Your task to perform on an android device: Add "macbook pro" to the cart on ebay, then select checkout. Image 0: 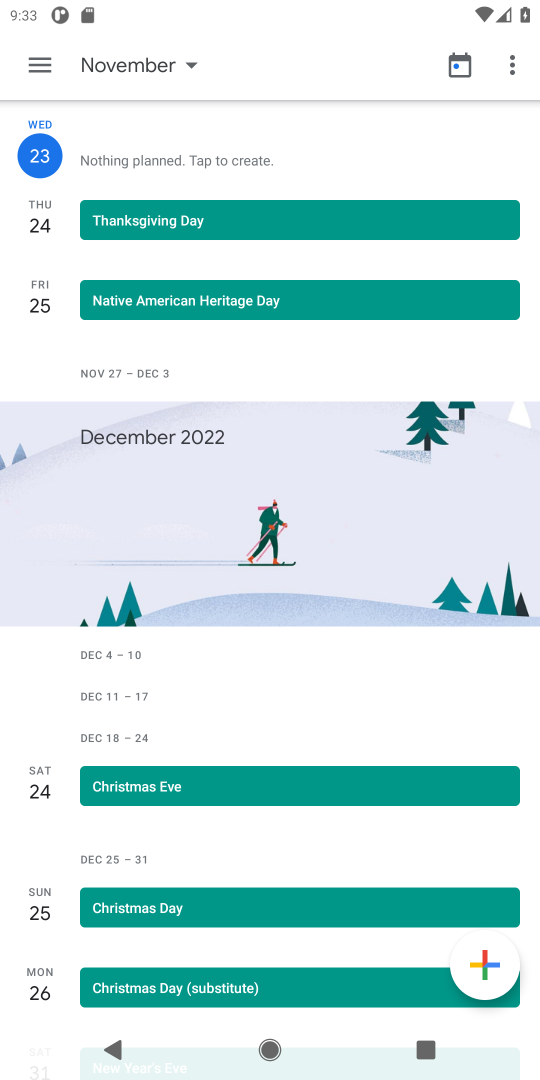
Step 0: press home button
Your task to perform on an android device: Add "macbook pro" to the cart on ebay, then select checkout. Image 1: 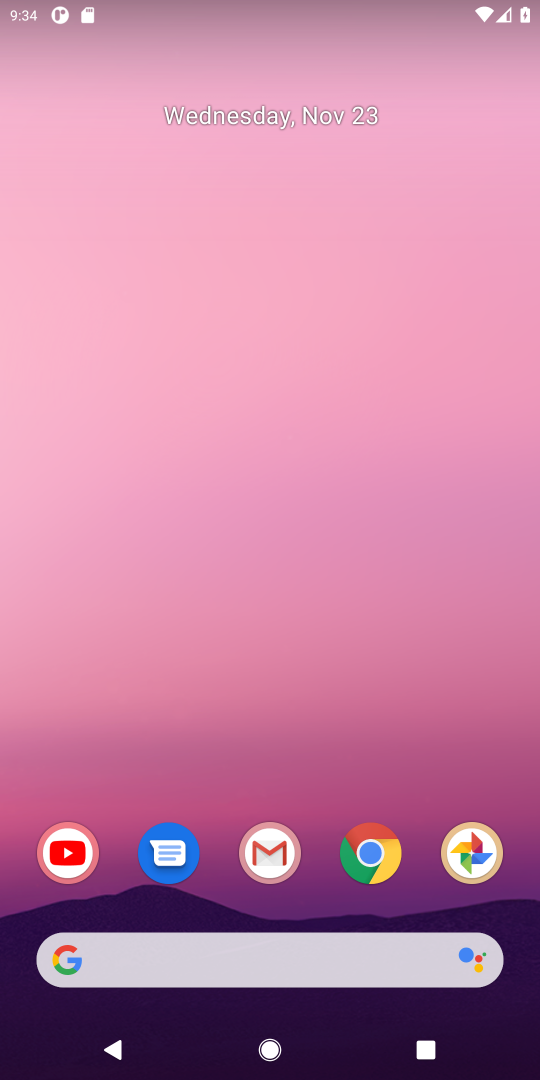
Step 1: click (374, 859)
Your task to perform on an android device: Add "macbook pro" to the cart on ebay, then select checkout. Image 2: 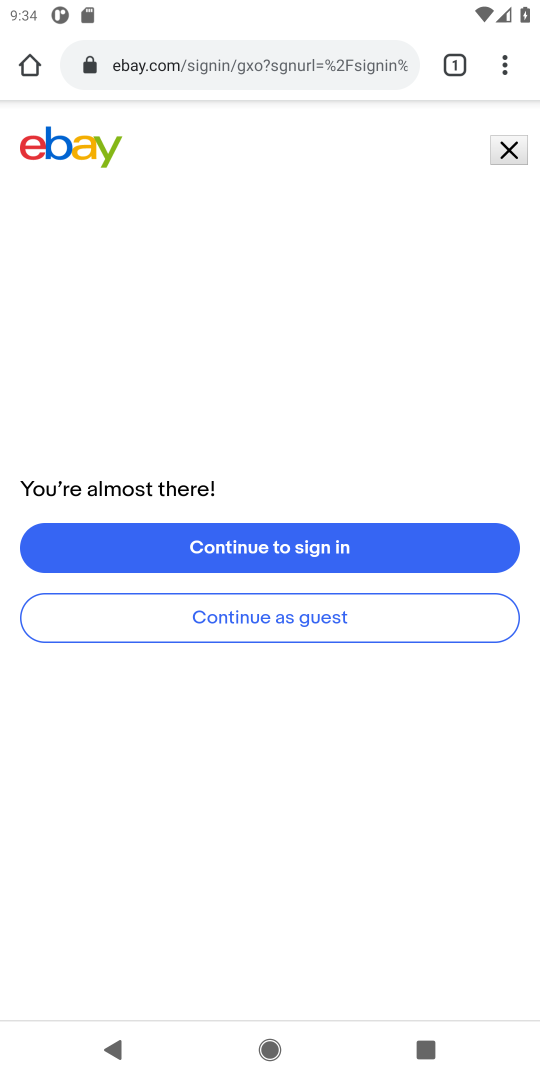
Step 2: click (203, 59)
Your task to perform on an android device: Add "macbook pro" to the cart on ebay, then select checkout. Image 3: 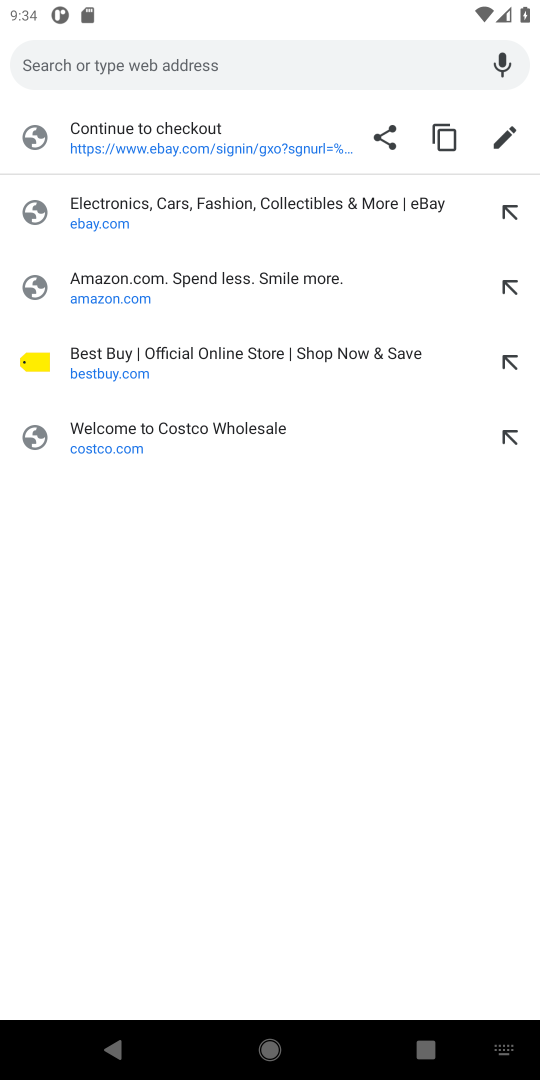
Step 3: click (112, 223)
Your task to perform on an android device: Add "macbook pro" to the cart on ebay, then select checkout. Image 4: 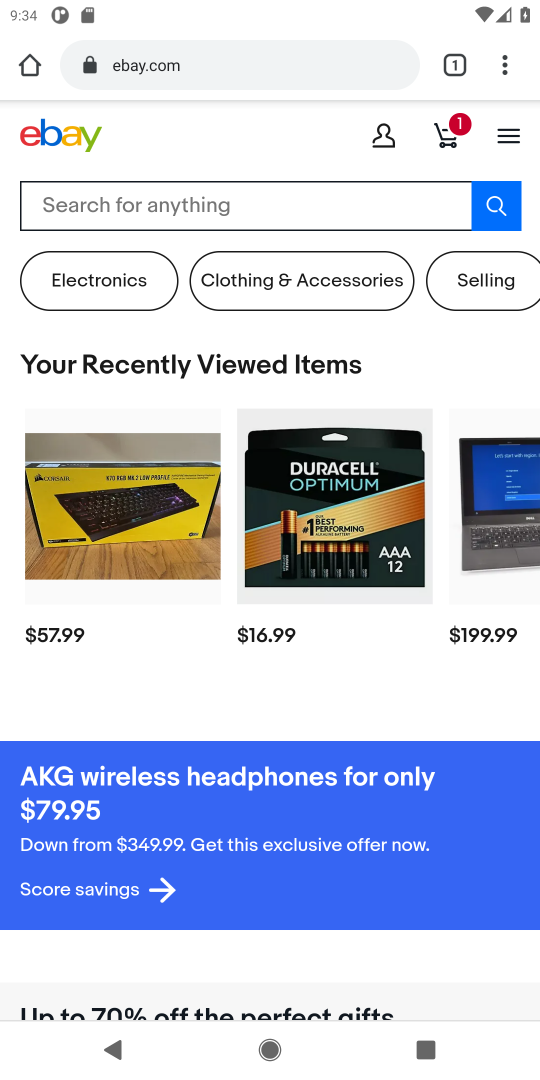
Step 4: click (148, 205)
Your task to perform on an android device: Add "macbook pro" to the cart on ebay, then select checkout. Image 5: 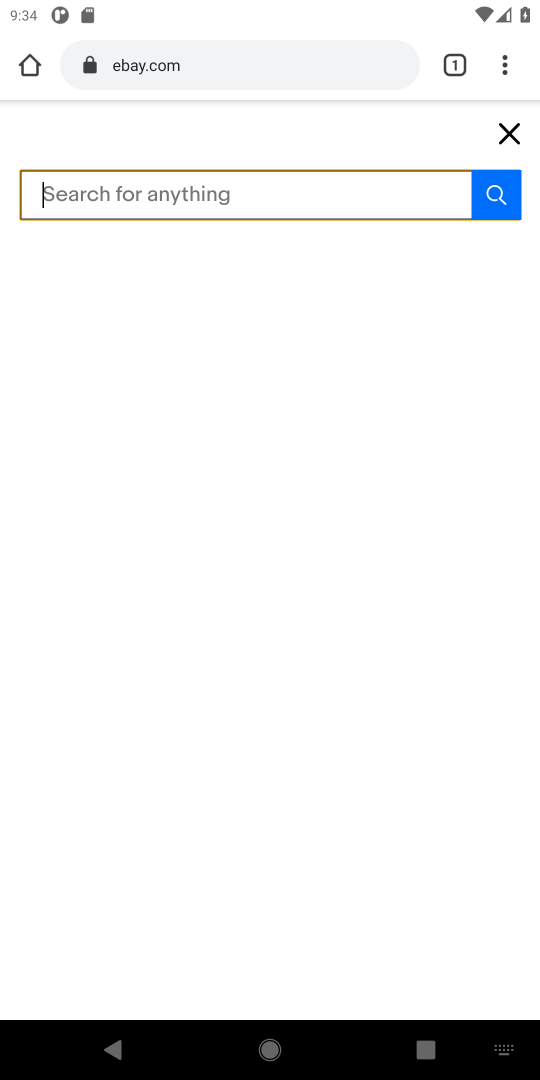
Step 5: type "macbook pro"
Your task to perform on an android device: Add "macbook pro" to the cart on ebay, then select checkout. Image 6: 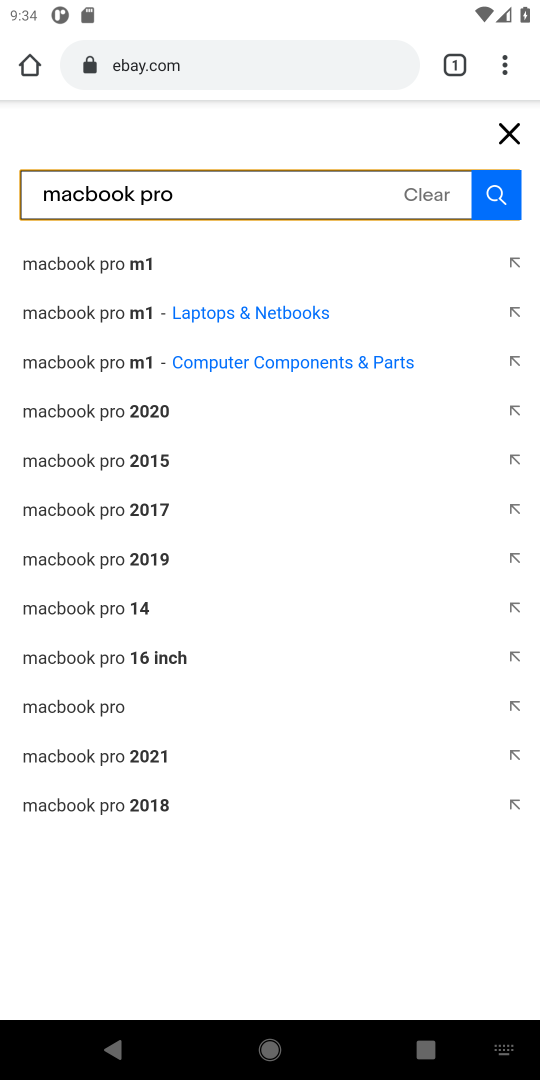
Step 6: click (38, 705)
Your task to perform on an android device: Add "macbook pro" to the cart on ebay, then select checkout. Image 7: 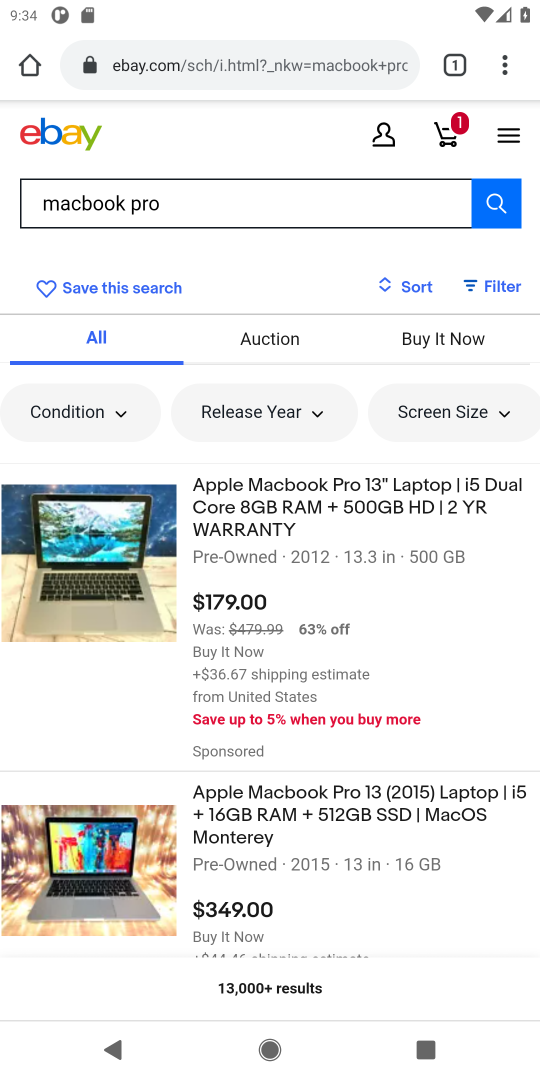
Step 7: click (98, 588)
Your task to perform on an android device: Add "macbook pro" to the cart on ebay, then select checkout. Image 8: 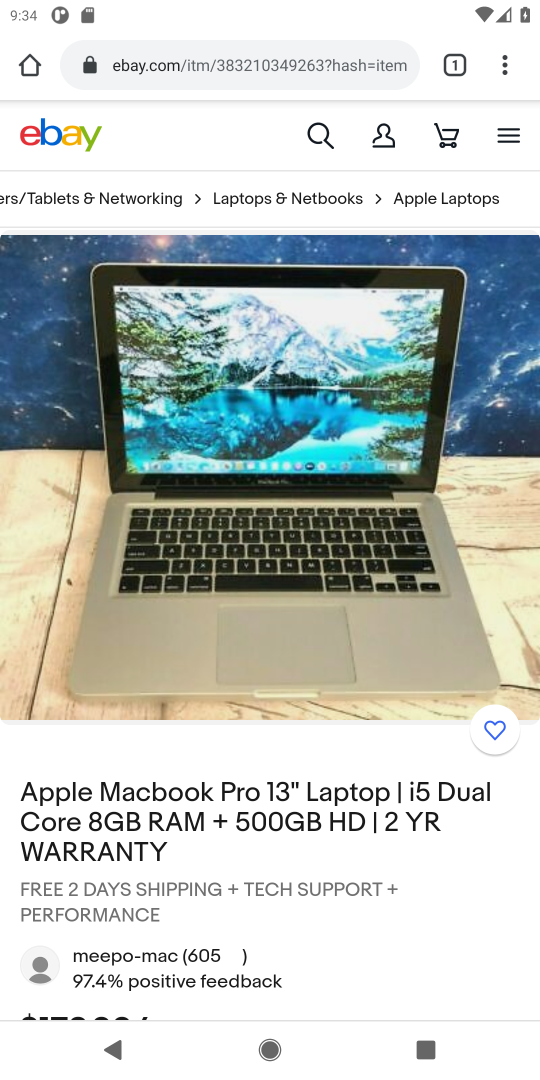
Step 8: drag from (309, 706) to (275, 327)
Your task to perform on an android device: Add "macbook pro" to the cart on ebay, then select checkout. Image 9: 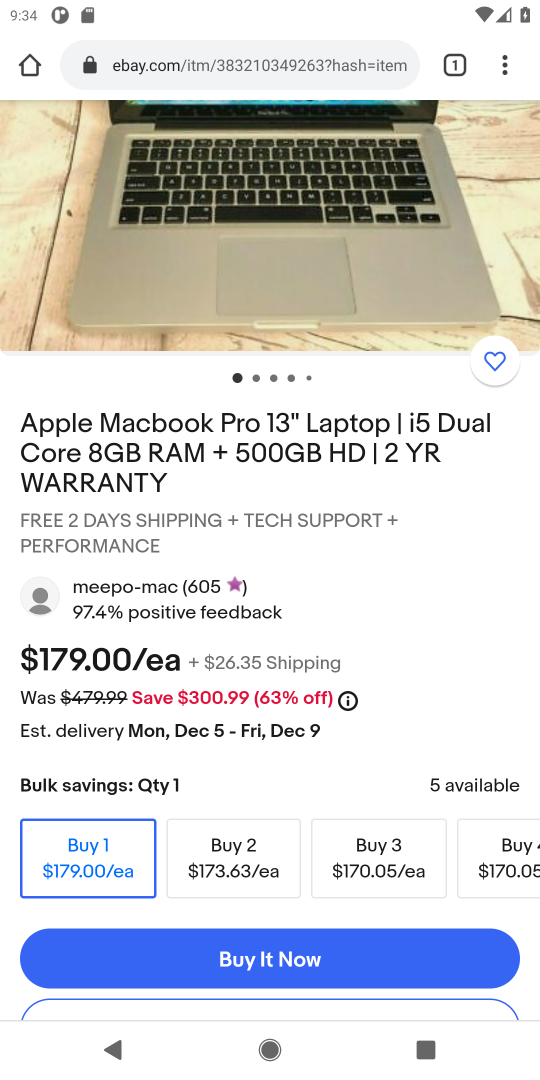
Step 9: drag from (218, 737) to (217, 448)
Your task to perform on an android device: Add "macbook pro" to the cart on ebay, then select checkout. Image 10: 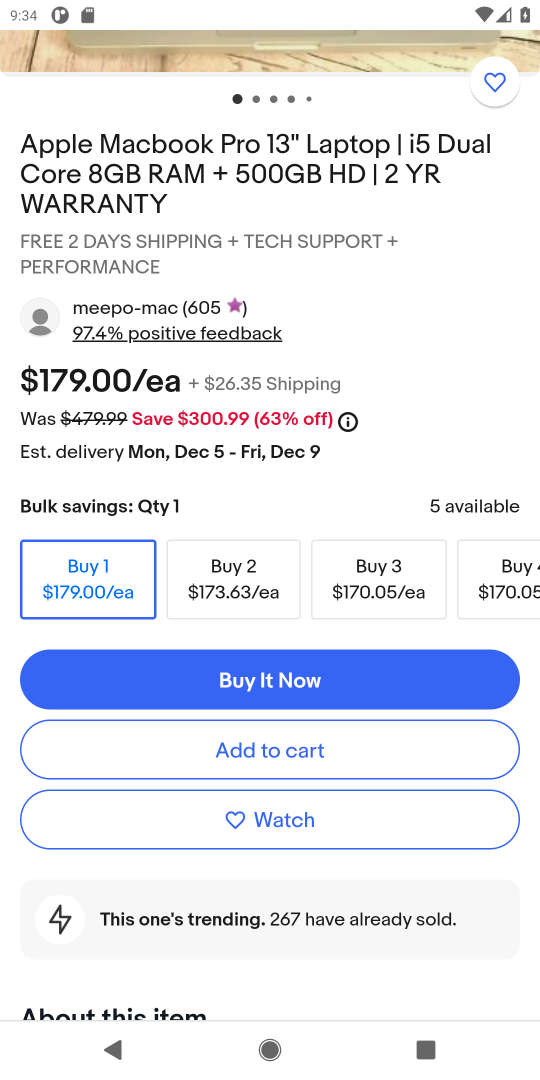
Step 10: click (199, 748)
Your task to perform on an android device: Add "macbook pro" to the cart on ebay, then select checkout. Image 11: 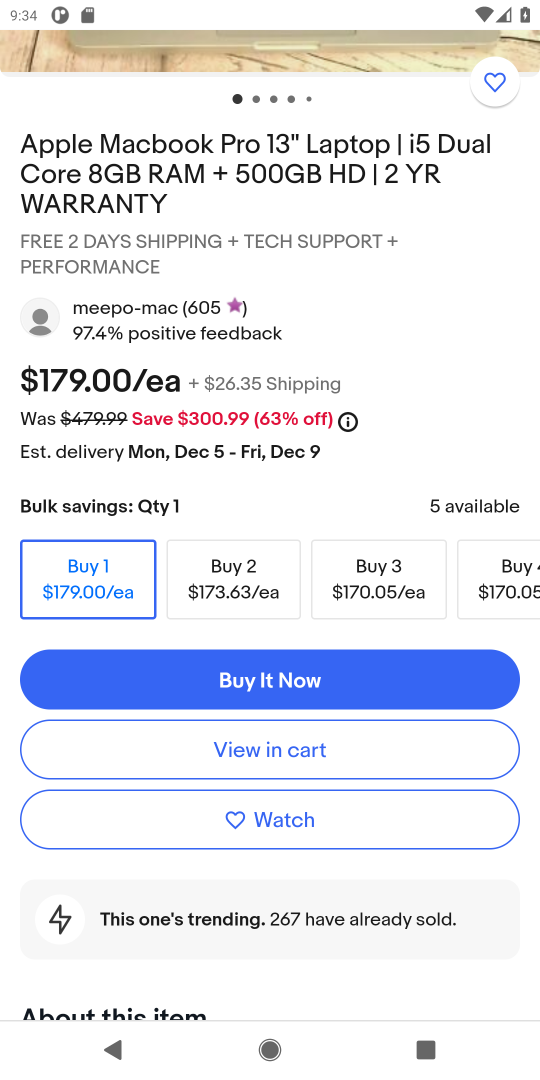
Step 11: click (228, 748)
Your task to perform on an android device: Add "macbook pro" to the cart on ebay, then select checkout. Image 12: 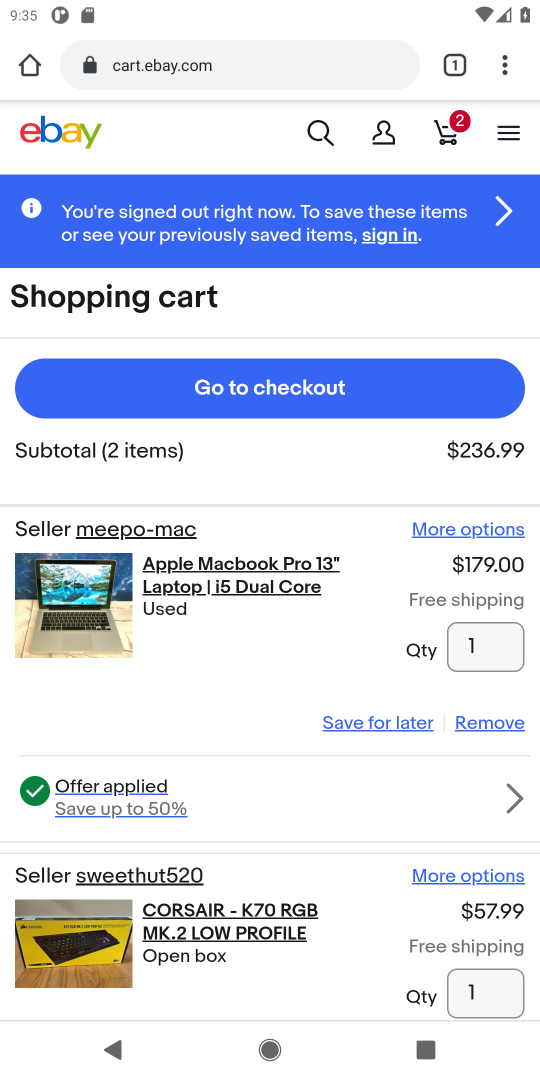
Step 12: click (266, 393)
Your task to perform on an android device: Add "macbook pro" to the cart on ebay, then select checkout. Image 13: 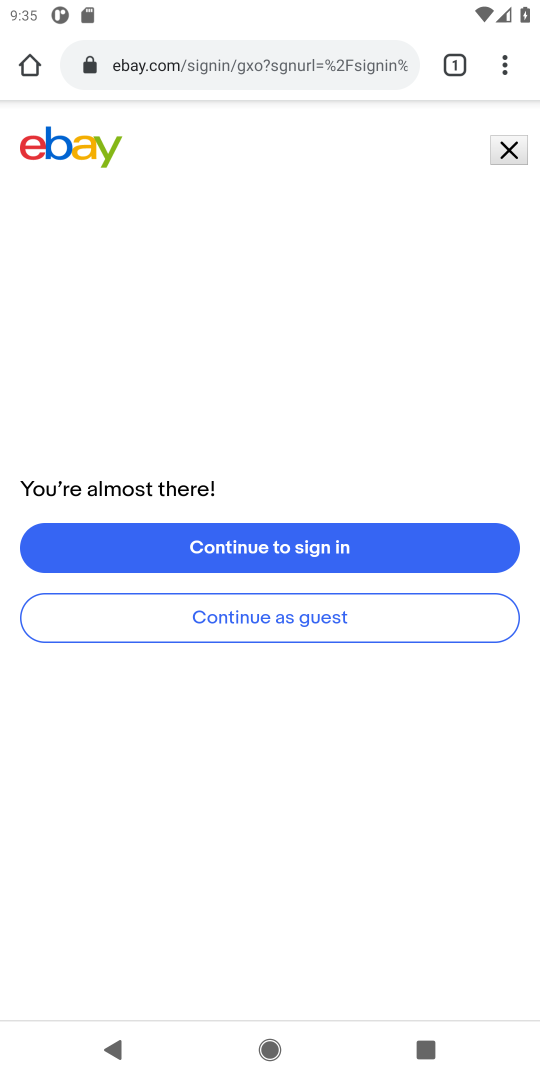
Step 13: task complete